Your task to perform on an android device: Open Yahoo.com Image 0: 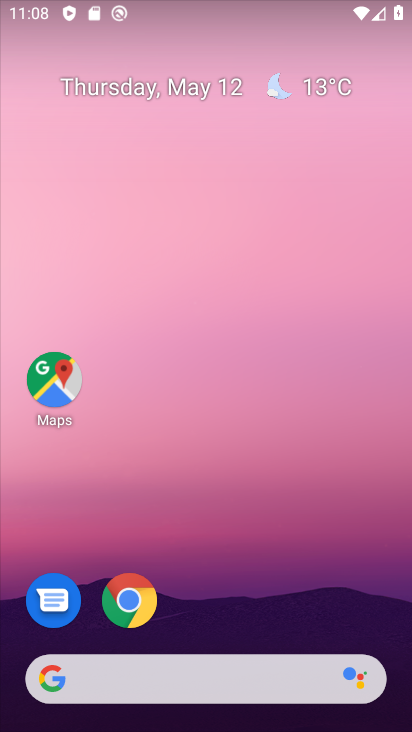
Step 0: click (132, 600)
Your task to perform on an android device: Open Yahoo.com Image 1: 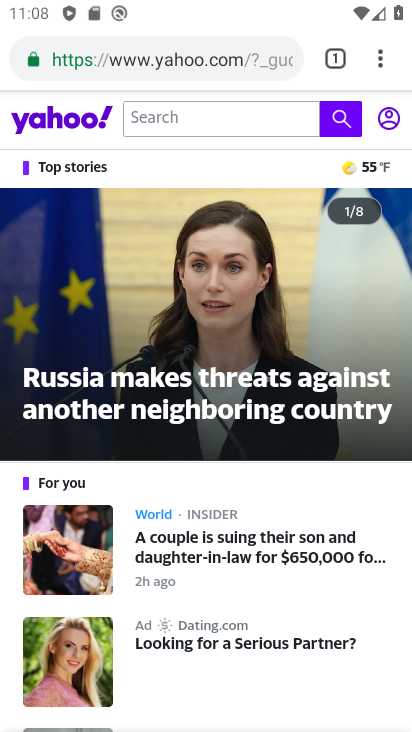
Step 1: task complete